Your task to perform on an android device: change your default location settings in chrome Image 0: 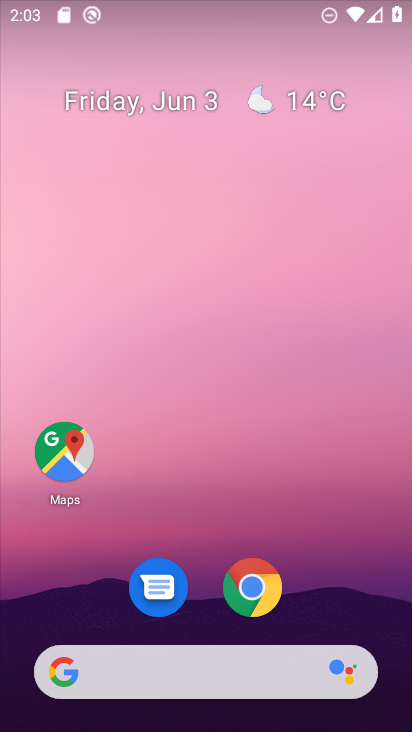
Step 0: click (243, 601)
Your task to perform on an android device: change your default location settings in chrome Image 1: 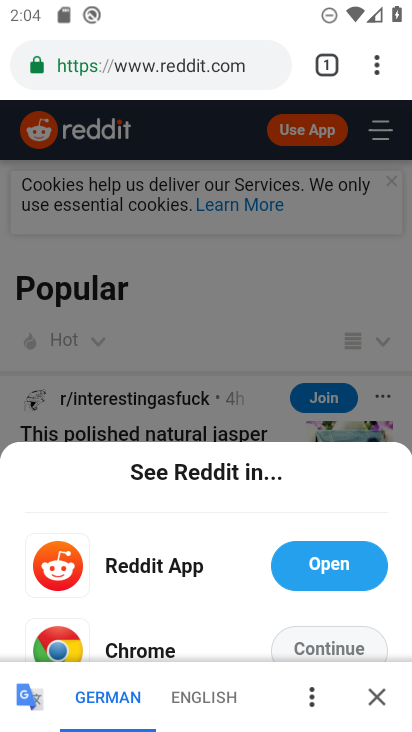
Step 1: click (375, 66)
Your task to perform on an android device: change your default location settings in chrome Image 2: 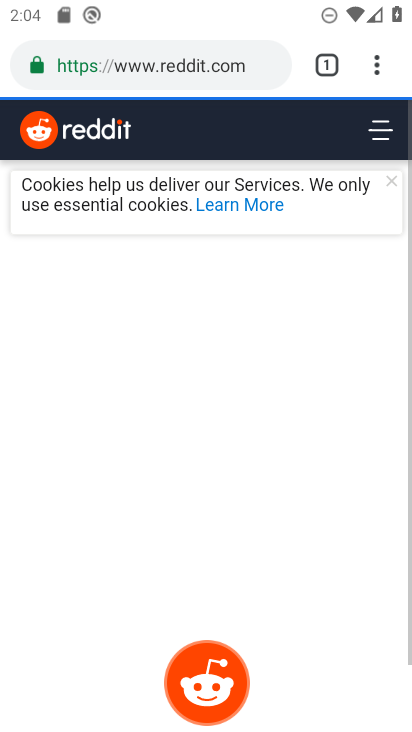
Step 2: click (390, 68)
Your task to perform on an android device: change your default location settings in chrome Image 3: 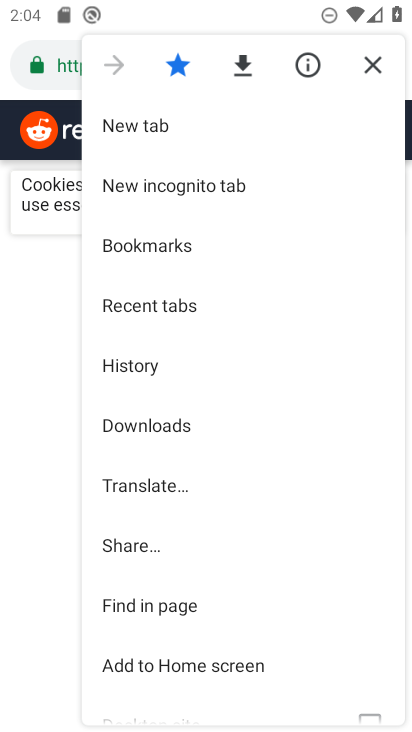
Step 3: drag from (139, 622) to (177, 169)
Your task to perform on an android device: change your default location settings in chrome Image 4: 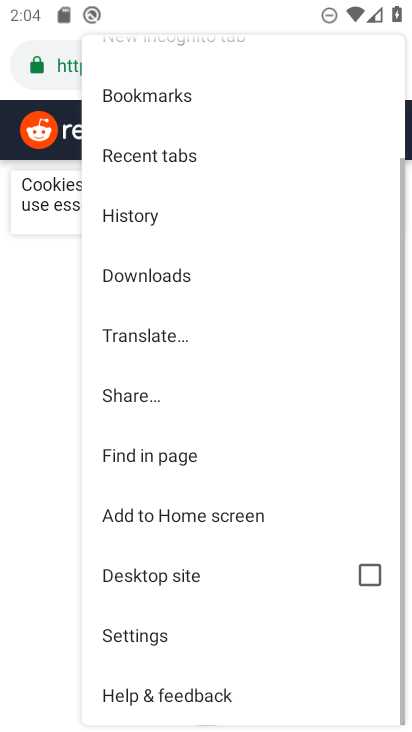
Step 4: click (120, 630)
Your task to perform on an android device: change your default location settings in chrome Image 5: 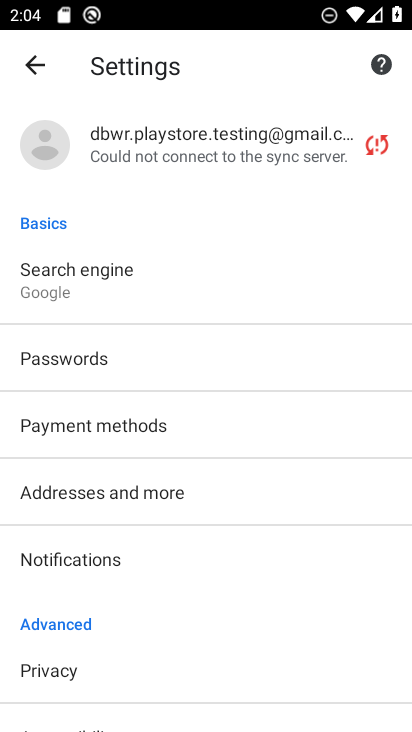
Step 5: drag from (147, 688) to (204, 156)
Your task to perform on an android device: change your default location settings in chrome Image 6: 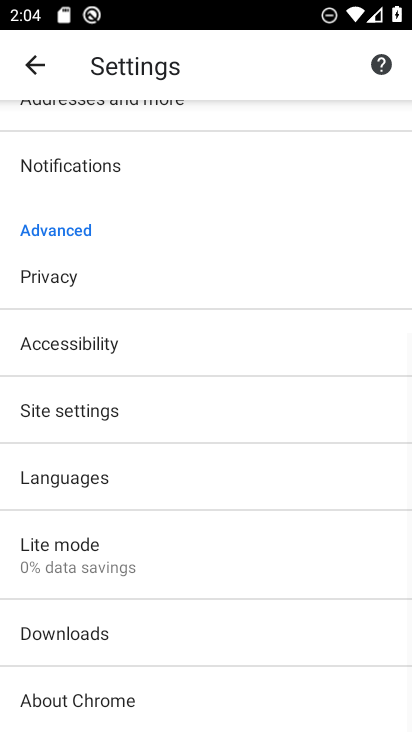
Step 6: click (94, 408)
Your task to perform on an android device: change your default location settings in chrome Image 7: 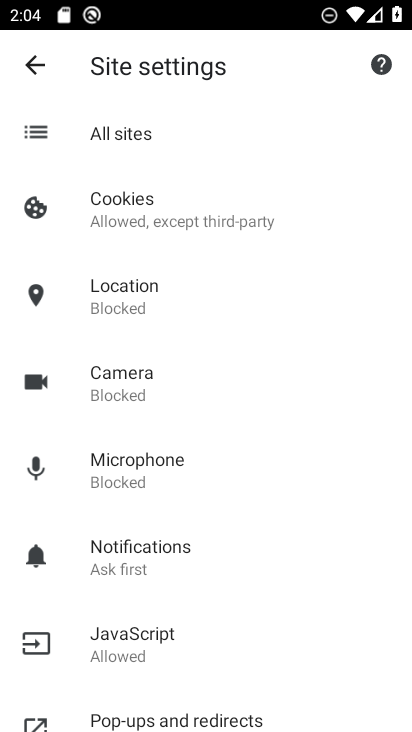
Step 7: click (165, 295)
Your task to perform on an android device: change your default location settings in chrome Image 8: 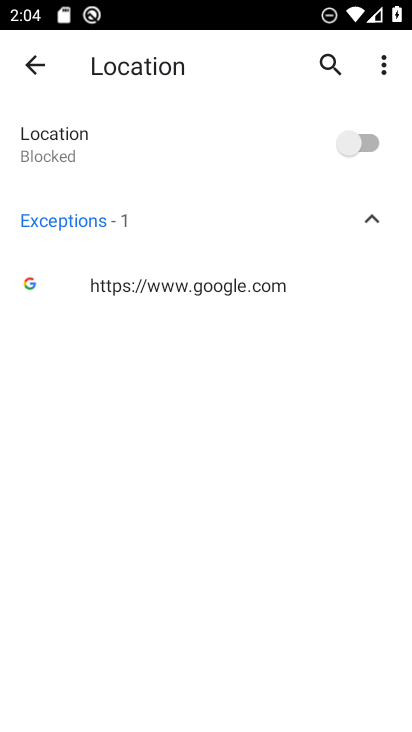
Step 8: click (360, 144)
Your task to perform on an android device: change your default location settings in chrome Image 9: 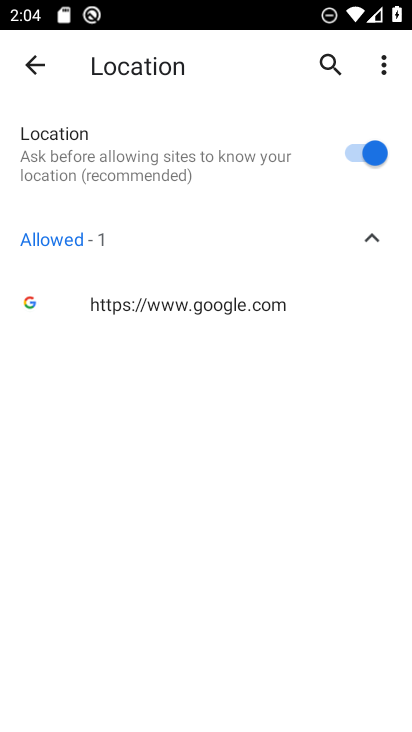
Step 9: task complete